Your task to perform on an android device: turn on bluetooth scan Image 0: 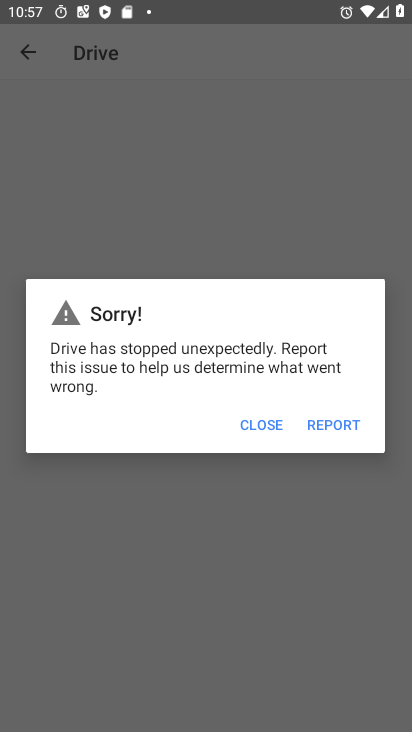
Step 0: press home button
Your task to perform on an android device: turn on bluetooth scan Image 1: 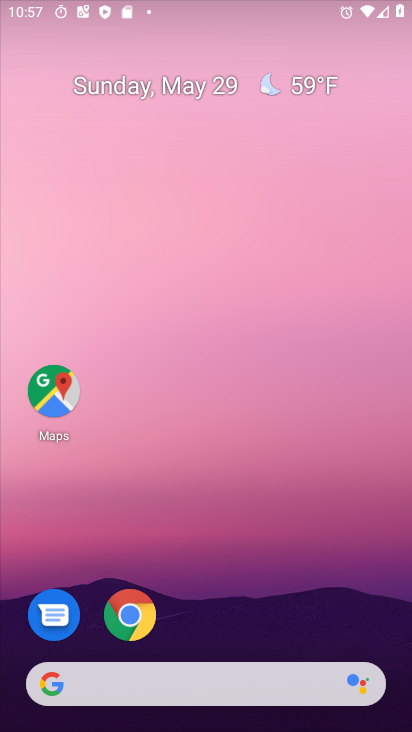
Step 1: drag from (250, 607) to (283, 103)
Your task to perform on an android device: turn on bluetooth scan Image 2: 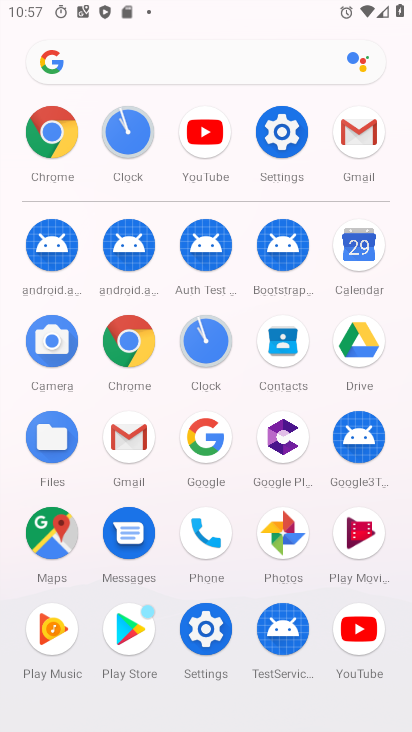
Step 2: click (278, 123)
Your task to perform on an android device: turn on bluetooth scan Image 3: 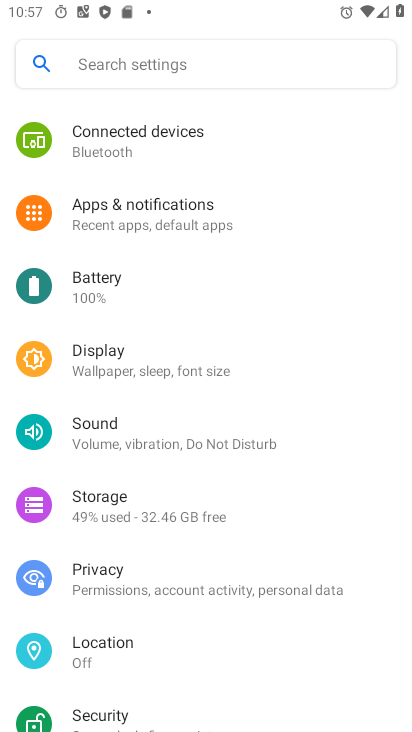
Step 3: drag from (166, 651) to (162, 455)
Your task to perform on an android device: turn on bluetooth scan Image 4: 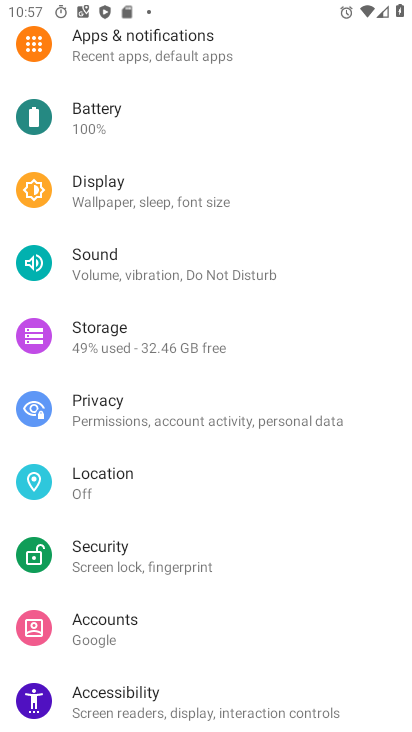
Step 4: click (101, 481)
Your task to perform on an android device: turn on bluetooth scan Image 5: 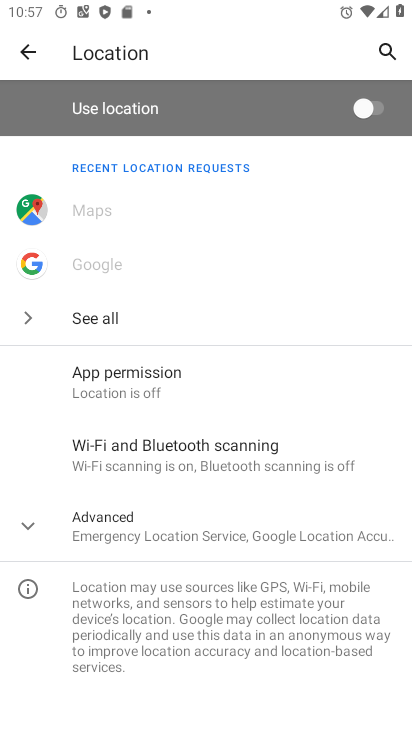
Step 5: click (180, 455)
Your task to perform on an android device: turn on bluetooth scan Image 6: 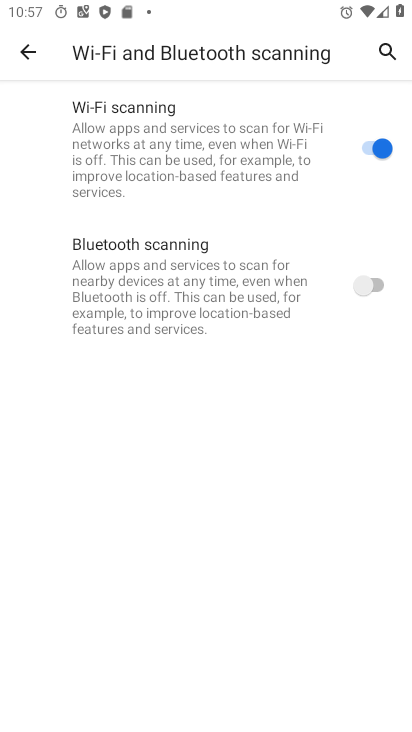
Step 6: click (369, 271)
Your task to perform on an android device: turn on bluetooth scan Image 7: 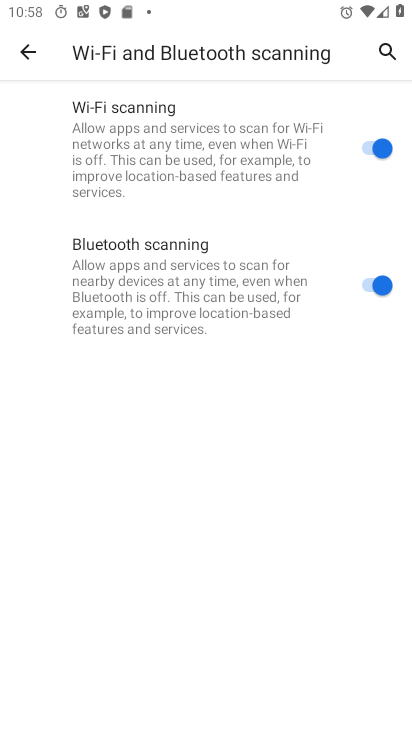
Step 7: task complete